Your task to perform on an android device: open app "DuckDuckGo Privacy Browser" Image 0: 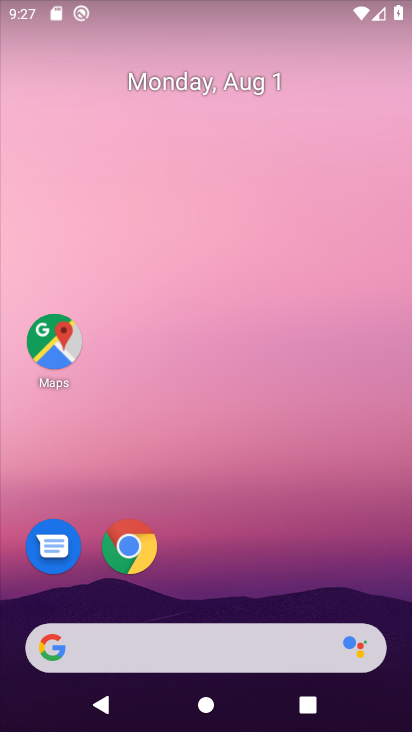
Step 0: press home button
Your task to perform on an android device: open app "DuckDuckGo Privacy Browser" Image 1: 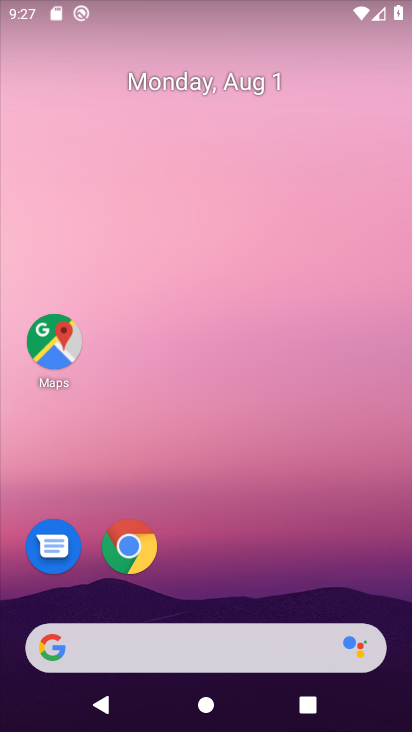
Step 1: drag from (222, 598) to (248, 0)
Your task to perform on an android device: open app "DuckDuckGo Privacy Browser" Image 2: 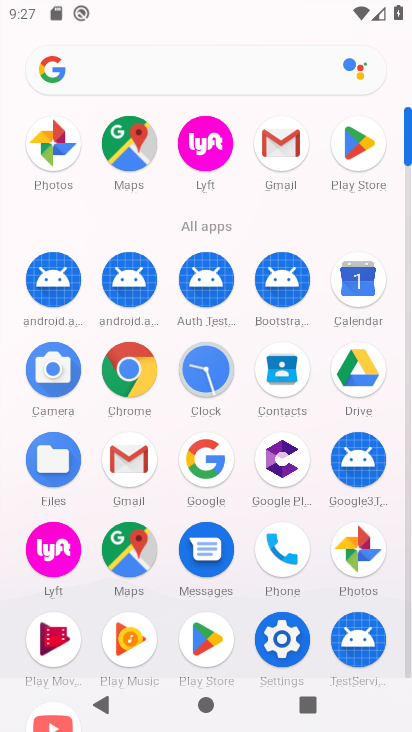
Step 2: click (354, 136)
Your task to perform on an android device: open app "DuckDuckGo Privacy Browser" Image 3: 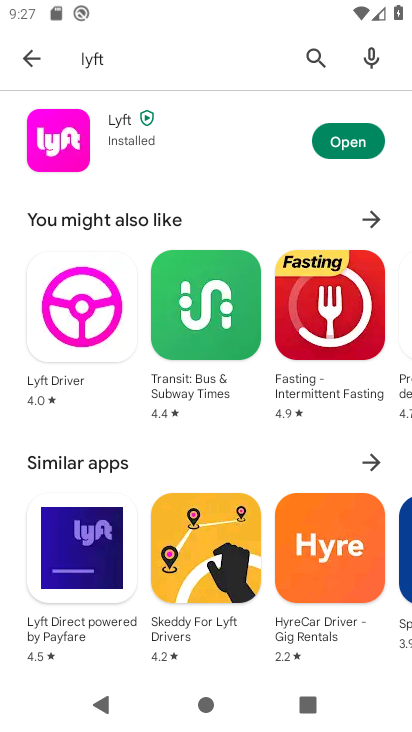
Step 3: click (312, 53)
Your task to perform on an android device: open app "DuckDuckGo Privacy Browser" Image 4: 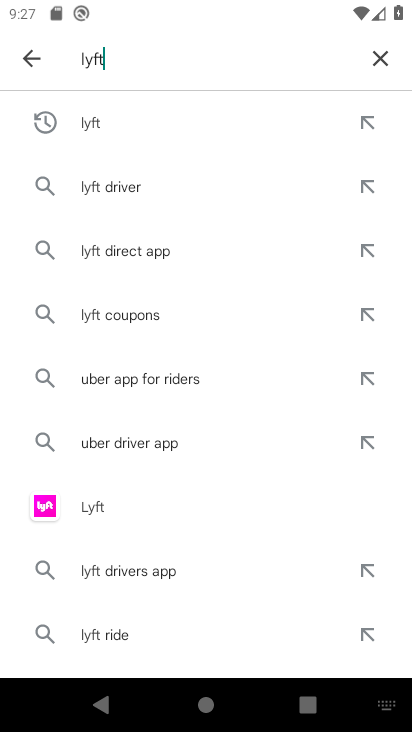
Step 4: click (380, 54)
Your task to perform on an android device: open app "DuckDuckGo Privacy Browser" Image 5: 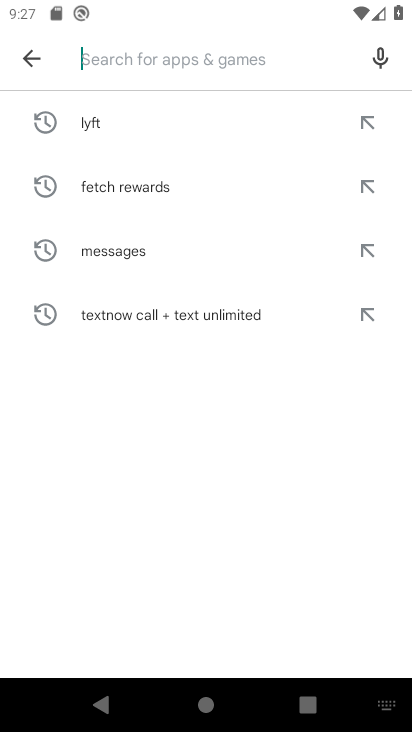
Step 5: type "DuckDuckGo Privacy Browser"
Your task to perform on an android device: open app "DuckDuckGo Privacy Browser" Image 6: 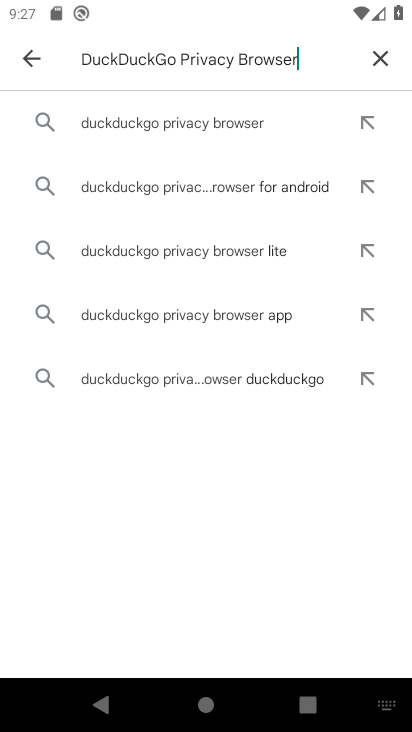
Step 6: click (231, 117)
Your task to perform on an android device: open app "DuckDuckGo Privacy Browser" Image 7: 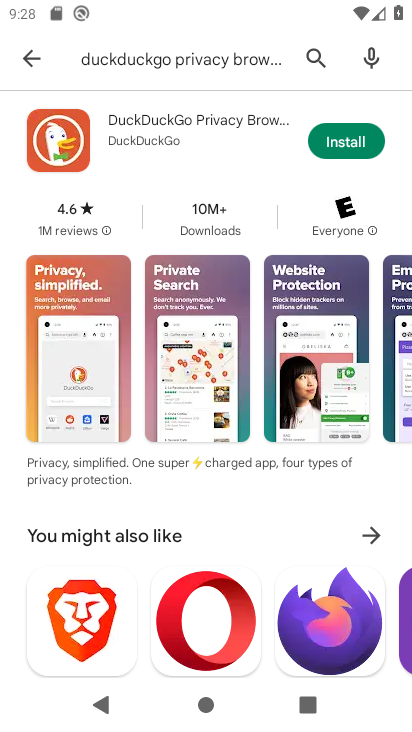
Step 7: task complete